Your task to perform on an android device: Open settings on Google Maps Image 0: 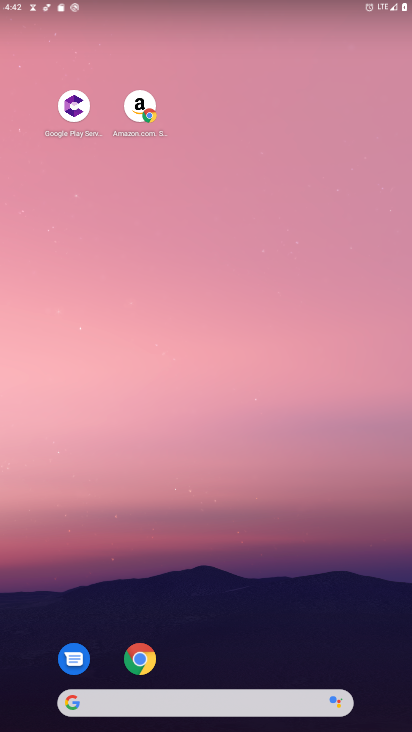
Step 0: drag from (232, 699) to (229, 83)
Your task to perform on an android device: Open settings on Google Maps Image 1: 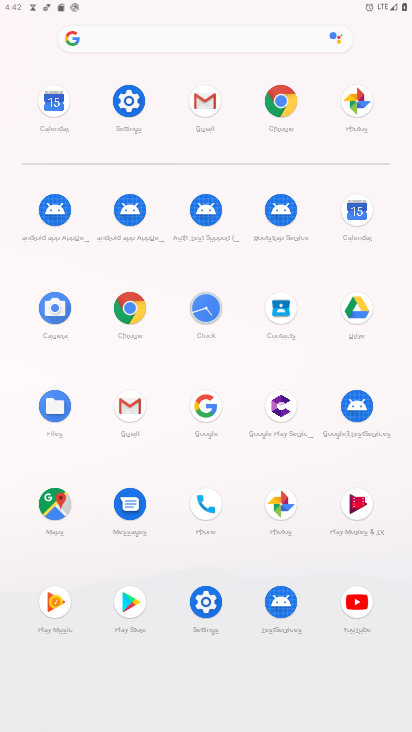
Step 1: click (56, 505)
Your task to perform on an android device: Open settings on Google Maps Image 2: 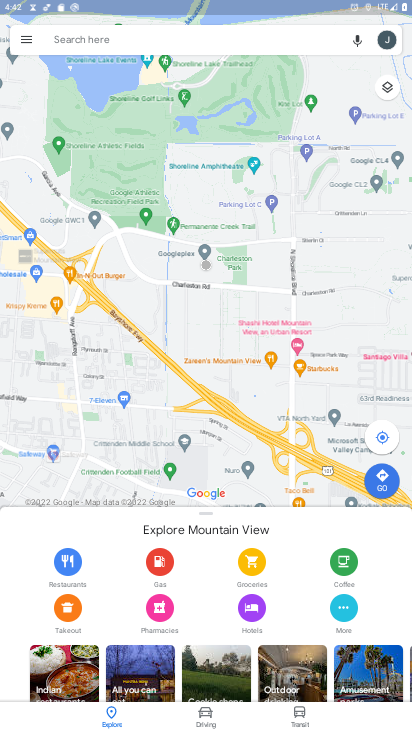
Step 2: click (25, 32)
Your task to perform on an android device: Open settings on Google Maps Image 3: 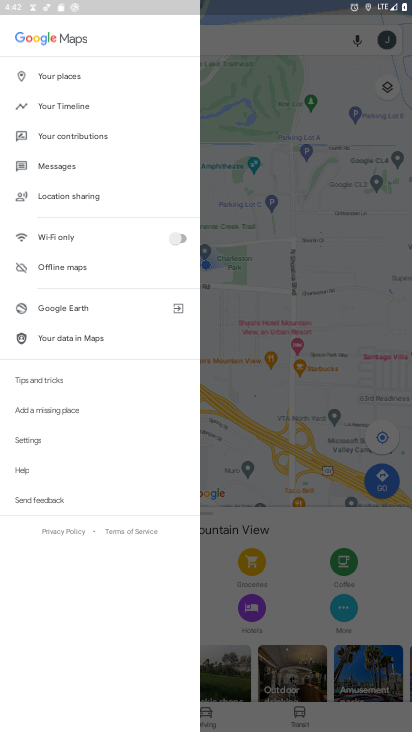
Step 3: click (41, 436)
Your task to perform on an android device: Open settings on Google Maps Image 4: 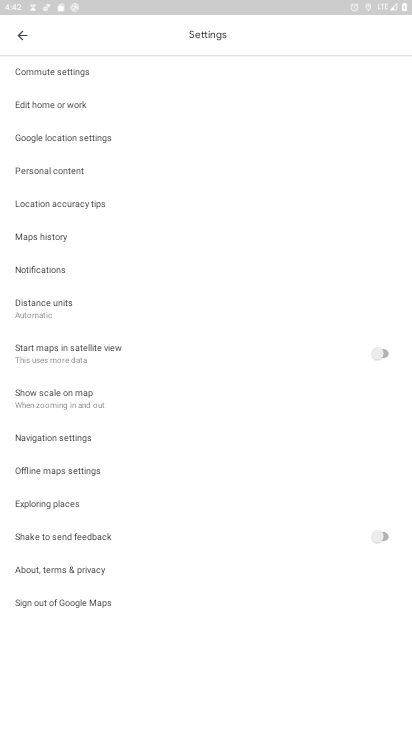
Step 4: task complete